Your task to perform on an android device: turn off sleep mode Image 0: 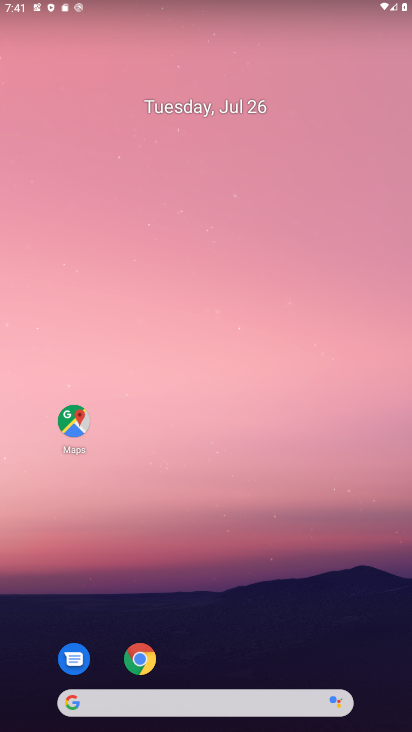
Step 0: drag from (199, 686) to (181, 112)
Your task to perform on an android device: turn off sleep mode Image 1: 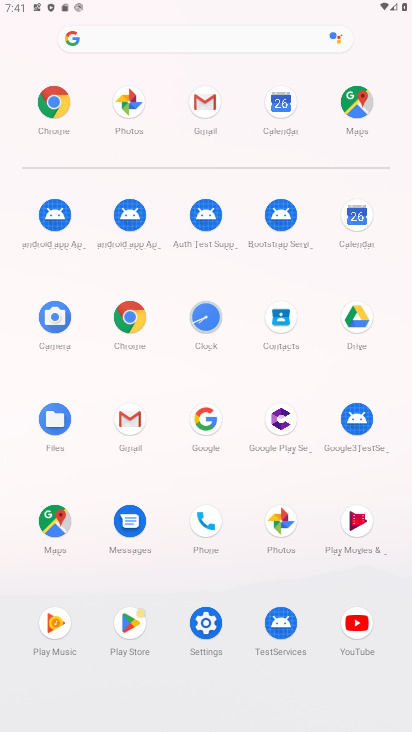
Step 1: click (223, 638)
Your task to perform on an android device: turn off sleep mode Image 2: 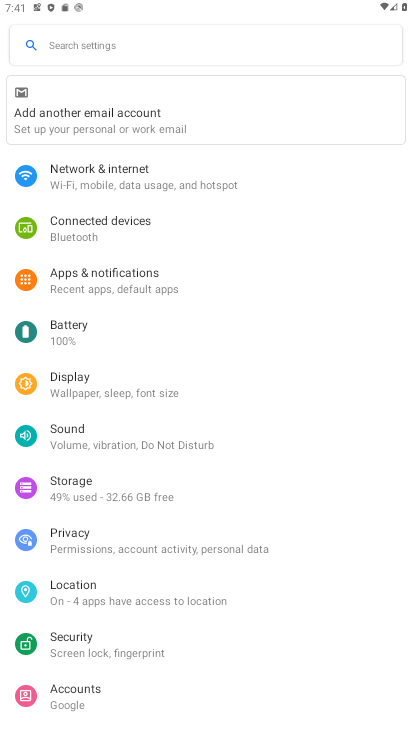
Step 2: click (111, 390)
Your task to perform on an android device: turn off sleep mode Image 3: 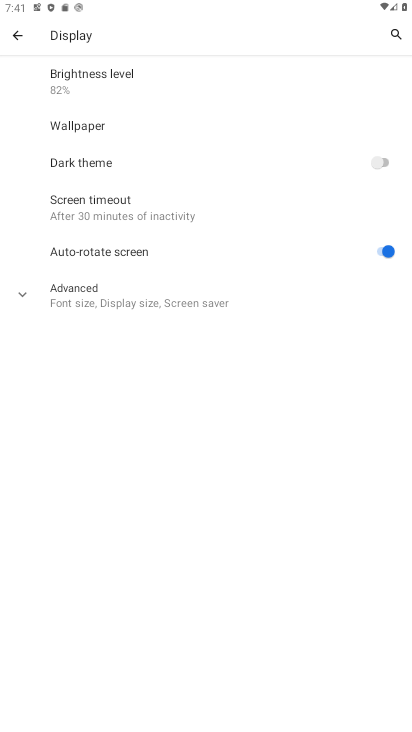
Step 3: task complete